Your task to perform on an android device: turn off sleep mode Image 0: 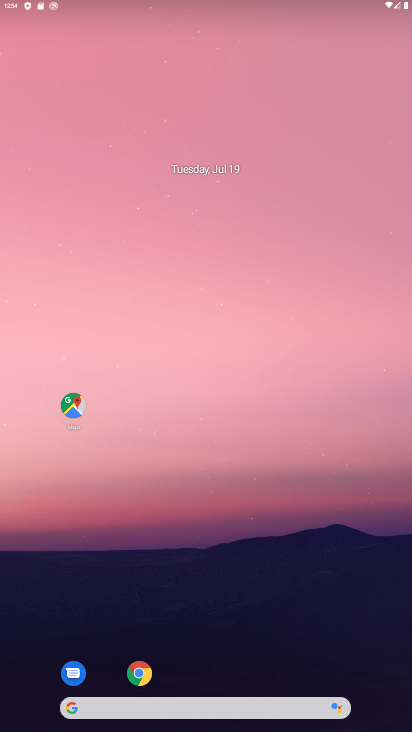
Step 0: click (225, 707)
Your task to perform on an android device: turn off sleep mode Image 1: 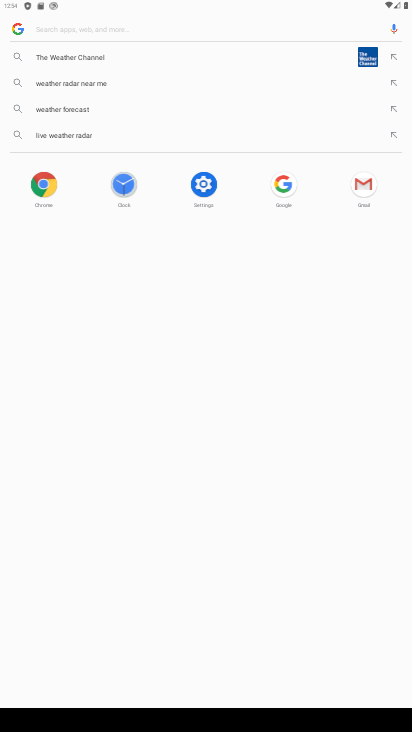
Step 1: press home button
Your task to perform on an android device: turn off sleep mode Image 2: 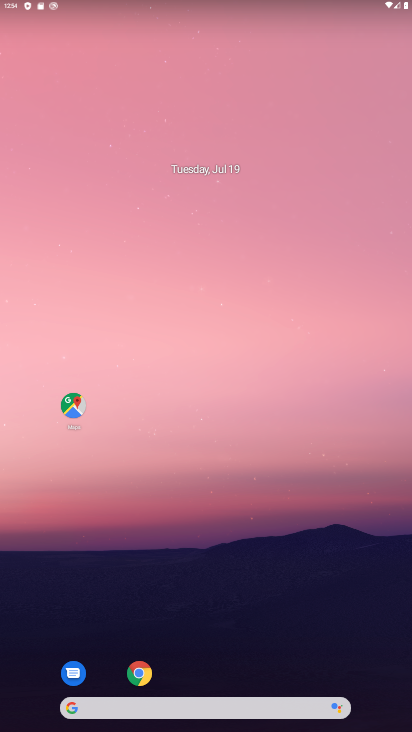
Step 2: drag from (188, 703) to (131, 693)
Your task to perform on an android device: turn off sleep mode Image 3: 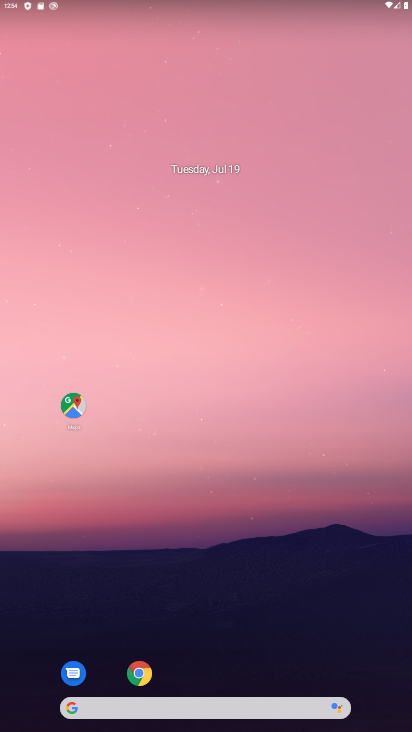
Step 3: drag from (206, 685) to (172, 91)
Your task to perform on an android device: turn off sleep mode Image 4: 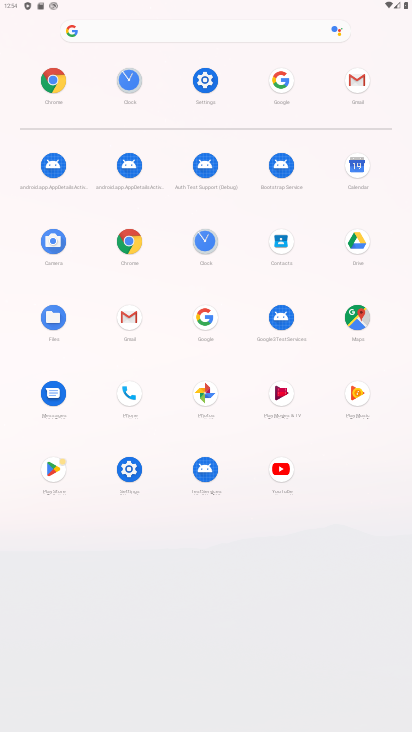
Step 4: click (126, 477)
Your task to perform on an android device: turn off sleep mode Image 5: 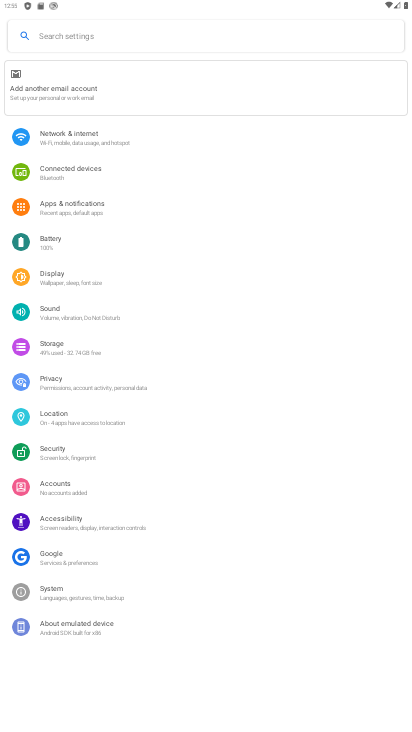
Step 5: task complete